Your task to perform on an android device: Search for seafood restaurants on Google Maps Image 0: 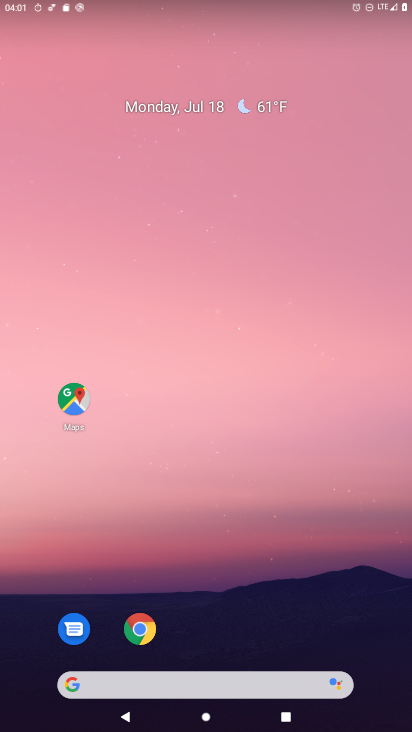
Step 0: click (72, 401)
Your task to perform on an android device: Search for seafood restaurants on Google Maps Image 1: 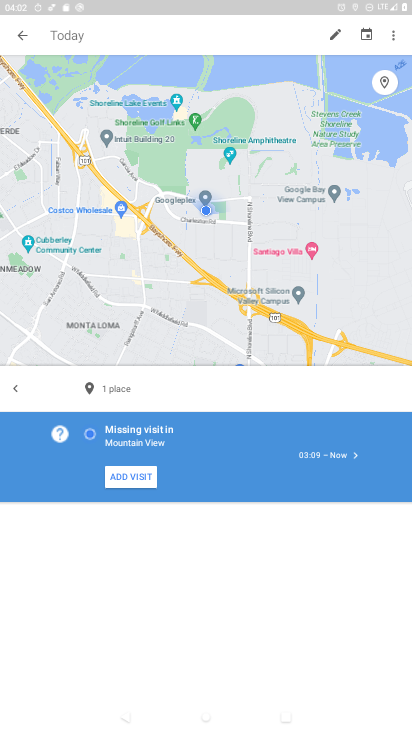
Step 1: press back button
Your task to perform on an android device: Search for seafood restaurants on Google Maps Image 2: 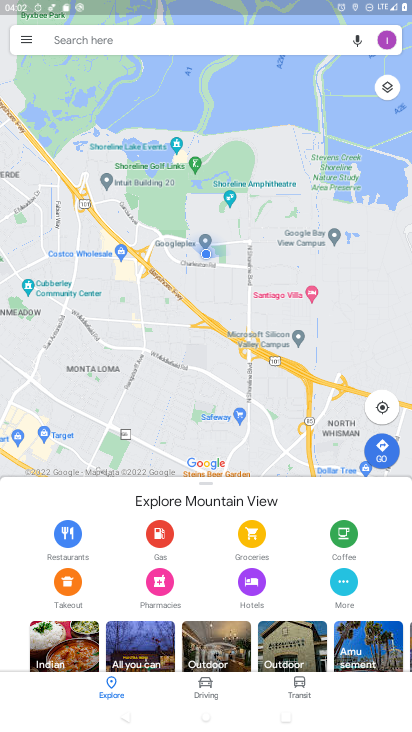
Step 2: click (148, 37)
Your task to perform on an android device: Search for seafood restaurants on Google Maps Image 3: 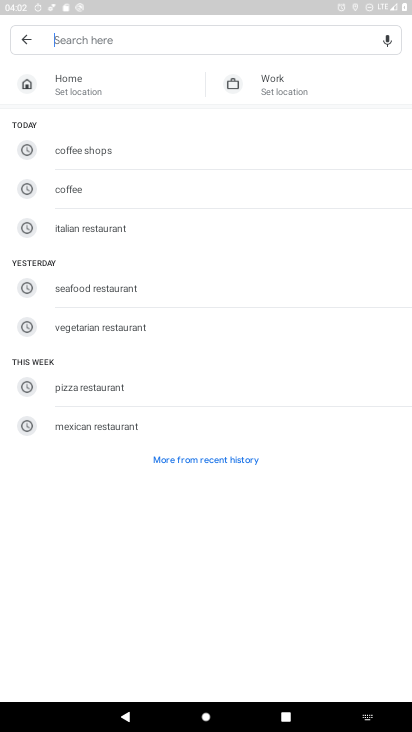
Step 3: type "seafood restaurants"
Your task to perform on an android device: Search for seafood restaurants on Google Maps Image 4: 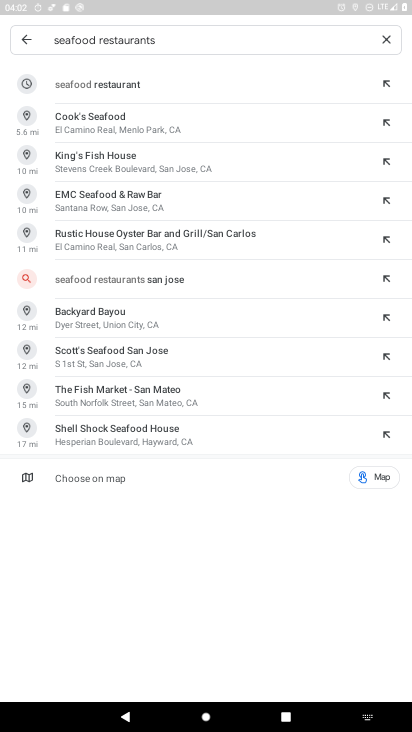
Step 4: click (136, 83)
Your task to perform on an android device: Search for seafood restaurants on Google Maps Image 5: 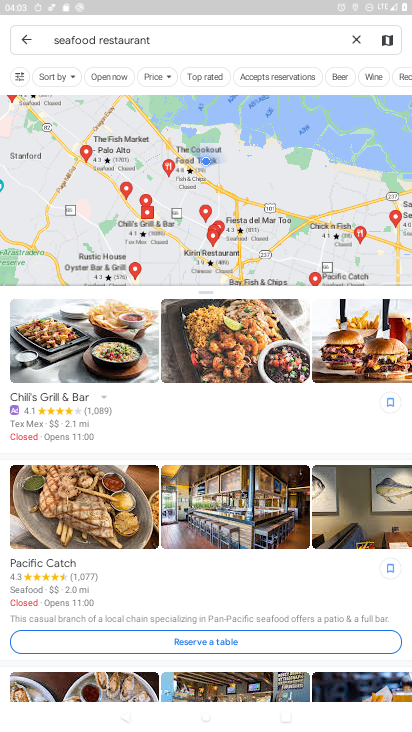
Step 5: task complete